Your task to perform on an android device: Go to Google Image 0: 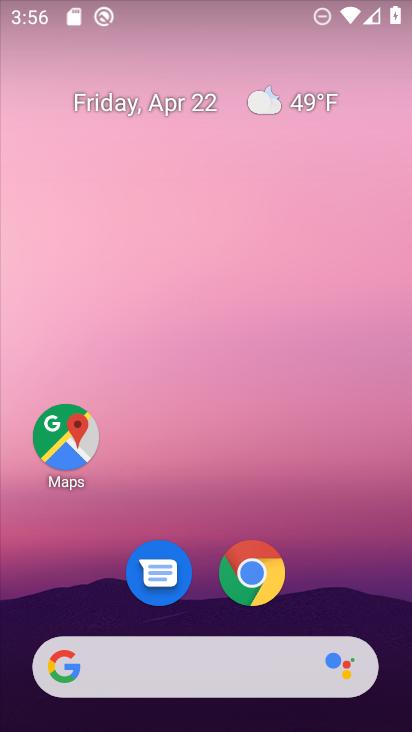
Step 0: drag from (346, 461) to (380, 118)
Your task to perform on an android device: Go to Google Image 1: 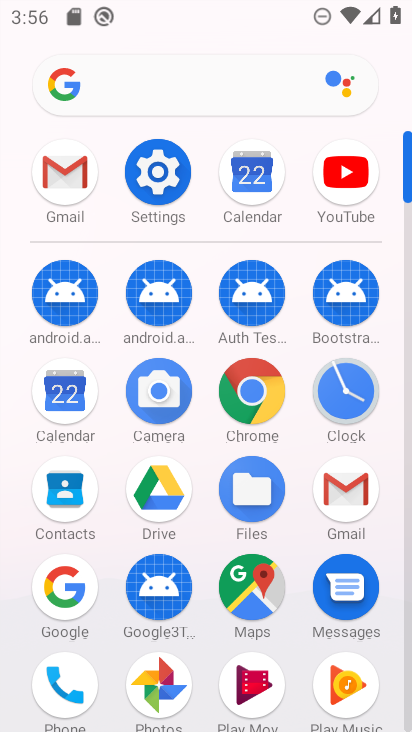
Step 1: click (83, 587)
Your task to perform on an android device: Go to Google Image 2: 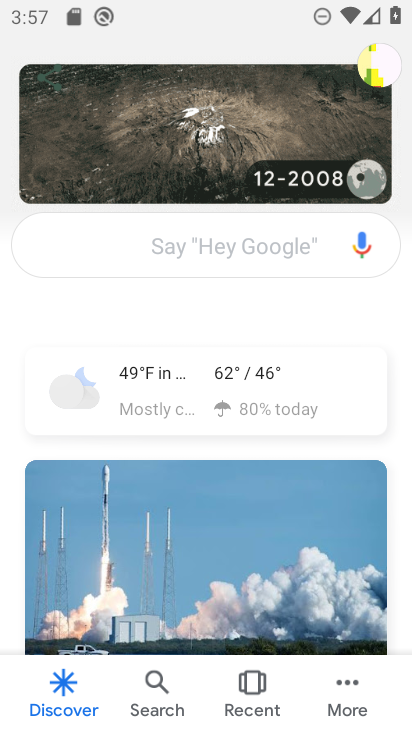
Step 2: task complete